Your task to perform on an android device: open device folders in google photos Image 0: 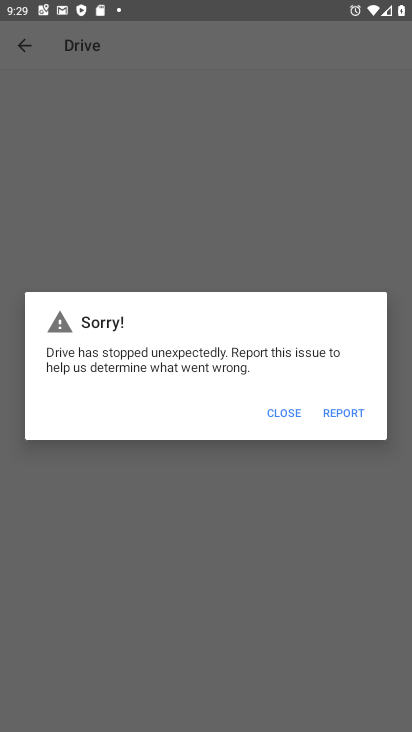
Step 0: press home button
Your task to perform on an android device: open device folders in google photos Image 1: 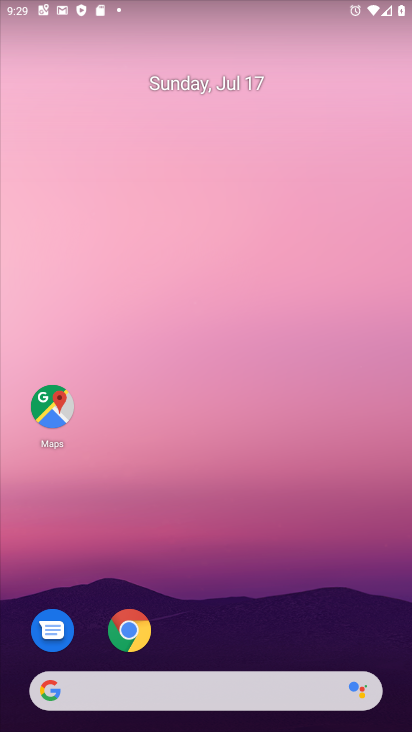
Step 1: drag from (311, 629) to (316, 112)
Your task to perform on an android device: open device folders in google photos Image 2: 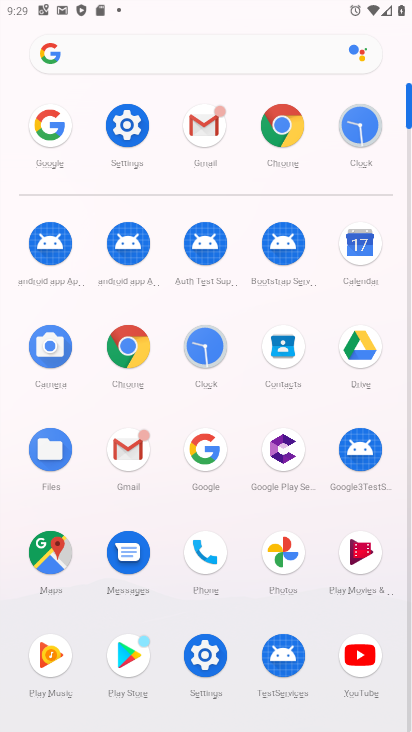
Step 2: click (278, 547)
Your task to perform on an android device: open device folders in google photos Image 3: 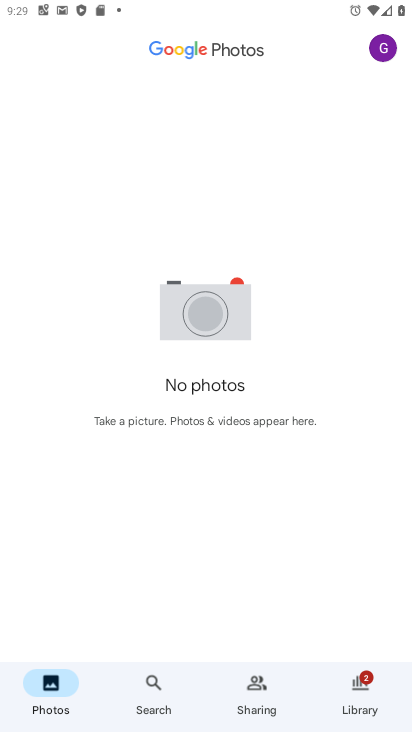
Step 3: click (373, 54)
Your task to perform on an android device: open device folders in google photos Image 4: 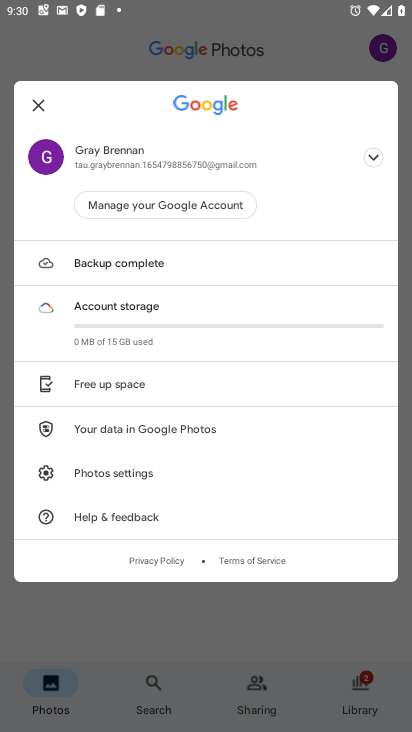
Step 4: task complete